Your task to perform on an android device: toggle data saver in the chrome app Image 0: 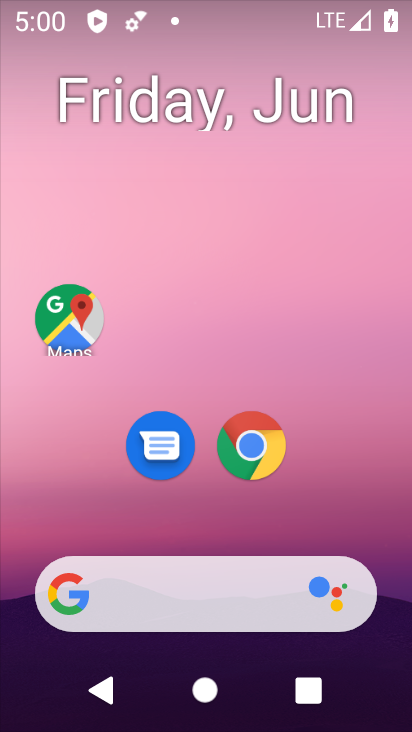
Step 0: drag from (403, 624) to (298, 17)
Your task to perform on an android device: toggle data saver in the chrome app Image 1: 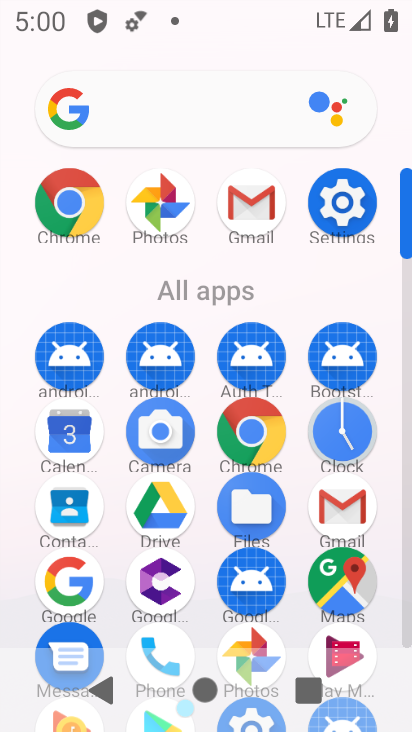
Step 1: drag from (7, 552) to (6, 195)
Your task to perform on an android device: toggle data saver in the chrome app Image 2: 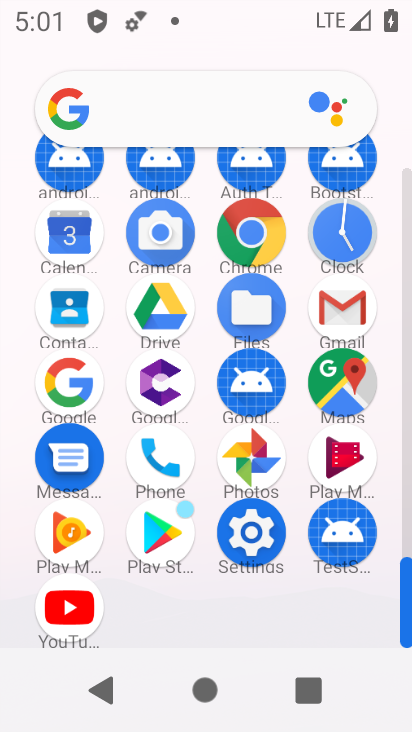
Step 2: click (248, 227)
Your task to perform on an android device: toggle data saver in the chrome app Image 3: 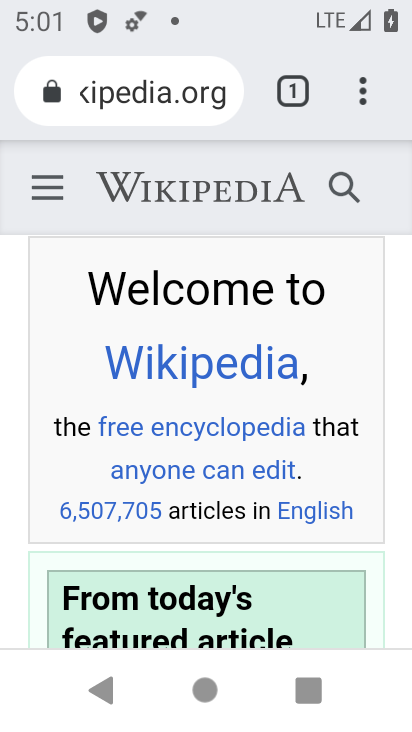
Step 3: drag from (360, 85) to (93, 459)
Your task to perform on an android device: toggle data saver in the chrome app Image 4: 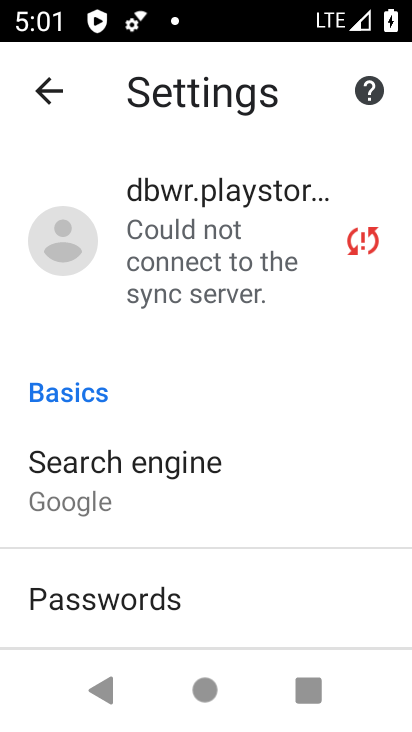
Step 4: click (233, 229)
Your task to perform on an android device: toggle data saver in the chrome app Image 5: 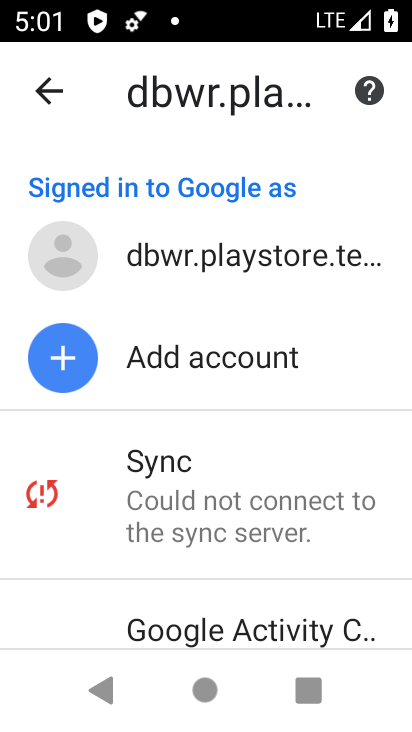
Step 5: click (50, 95)
Your task to perform on an android device: toggle data saver in the chrome app Image 6: 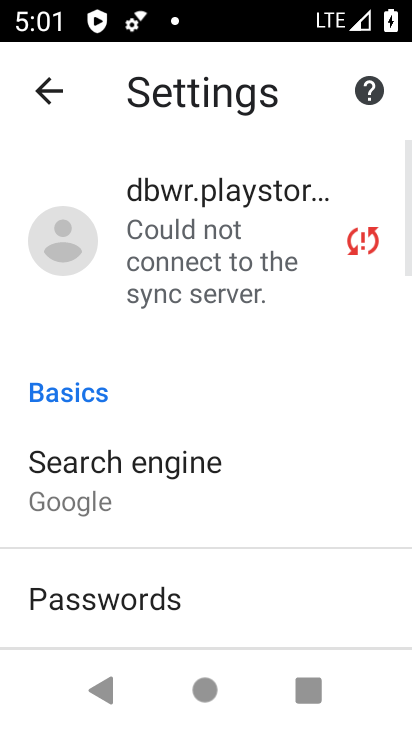
Step 6: drag from (208, 565) to (211, 194)
Your task to perform on an android device: toggle data saver in the chrome app Image 7: 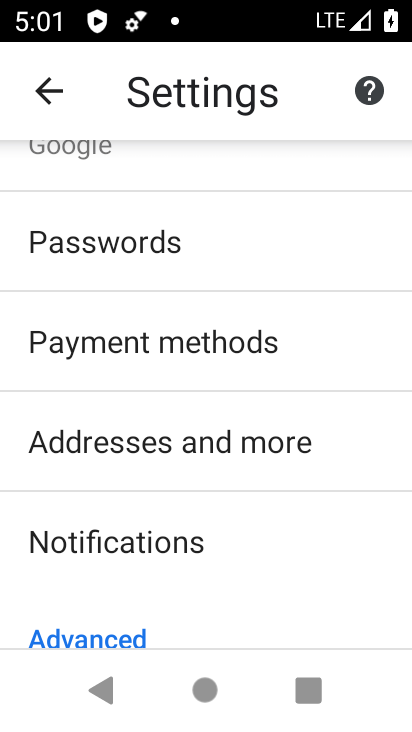
Step 7: drag from (241, 528) to (251, 199)
Your task to perform on an android device: toggle data saver in the chrome app Image 8: 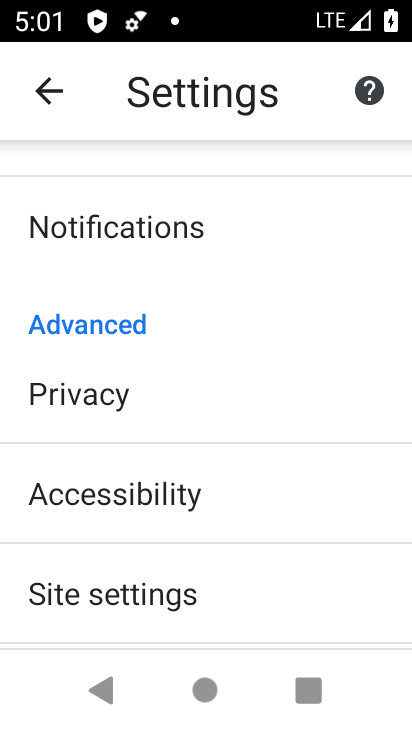
Step 8: drag from (262, 411) to (276, 205)
Your task to perform on an android device: toggle data saver in the chrome app Image 9: 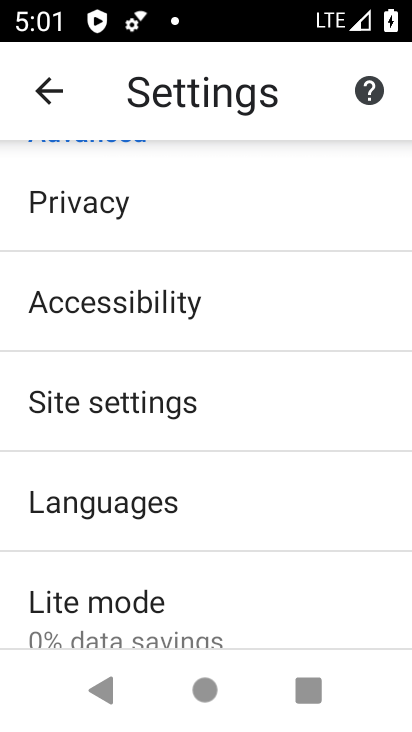
Step 9: drag from (262, 521) to (260, 178)
Your task to perform on an android device: toggle data saver in the chrome app Image 10: 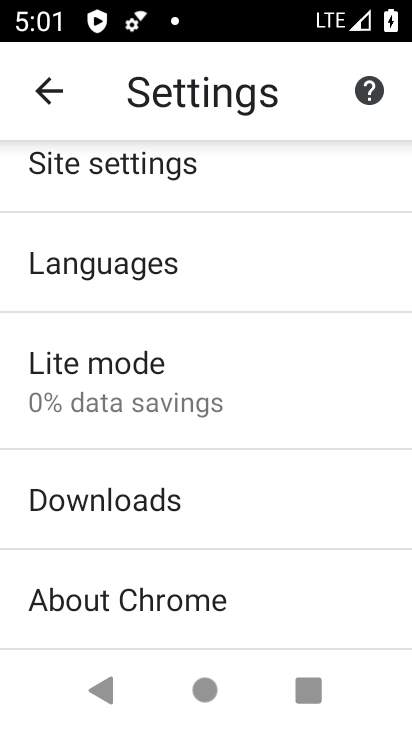
Step 10: click (151, 363)
Your task to perform on an android device: toggle data saver in the chrome app Image 11: 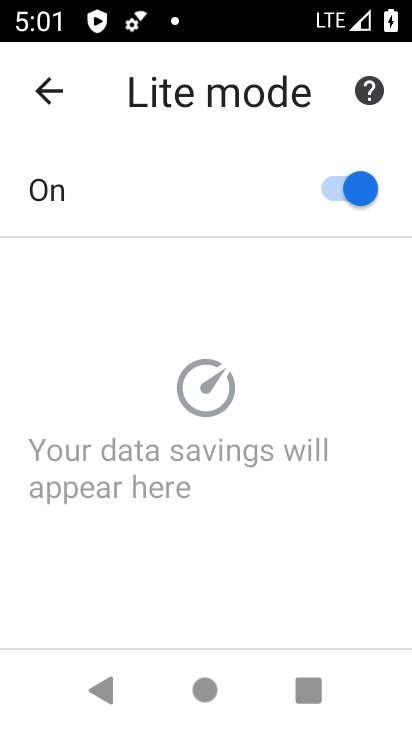
Step 11: click (347, 191)
Your task to perform on an android device: toggle data saver in the chrome app Image 12: 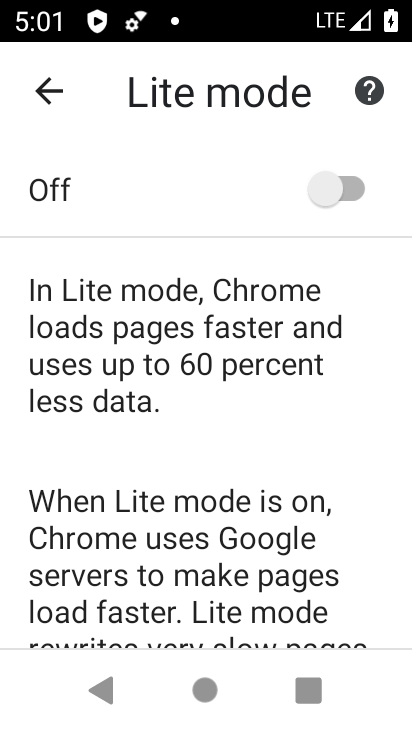
Step 12: task complete